Your task to perform on an android device: Open wifi settings Image 0: 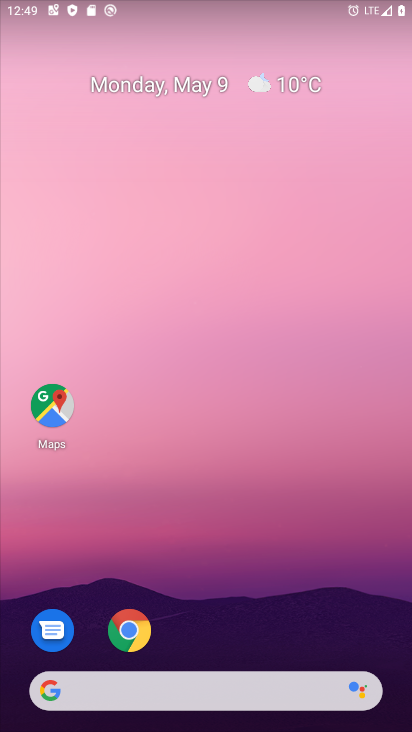
Step 0: drag from (306, 631) to (292, 56)
Your task to perform on an android device: Open wifi settings Image 1: 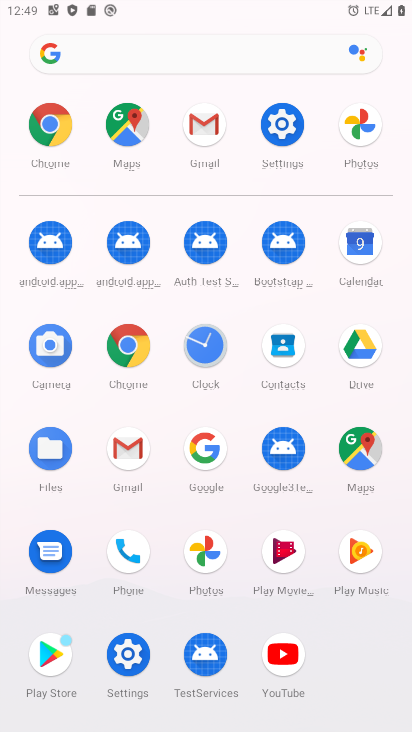
Step 1: click (123, 667)
Your task to perform on an android device: Open wifi settings Image 2: 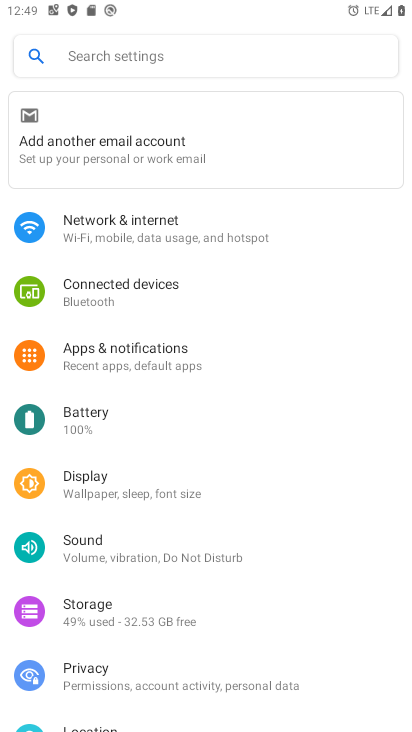
Step 2: click (149, 242)
Your task to perform on an android device: Open wifi settings Image 3: 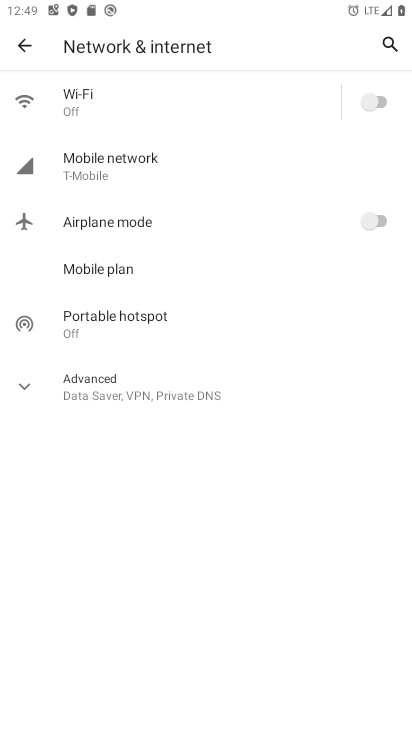
Step 3: click (125, 124)
Your task to perform on an android device: Open wifi settings Image 4: 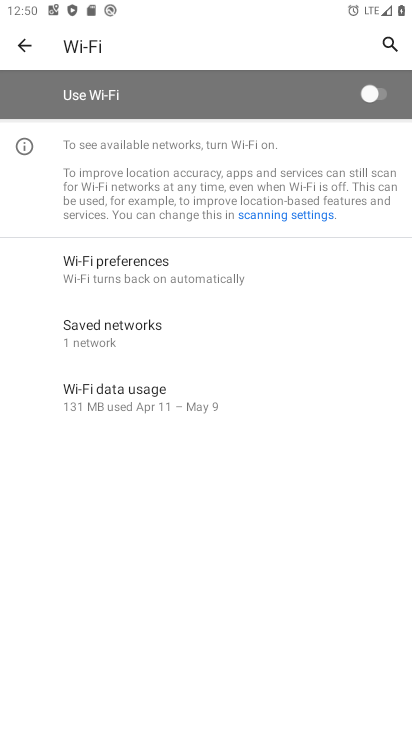
Step 4: task complete